Your task to perform on an android device: Open calendar and show me the third week of next month Image 0: 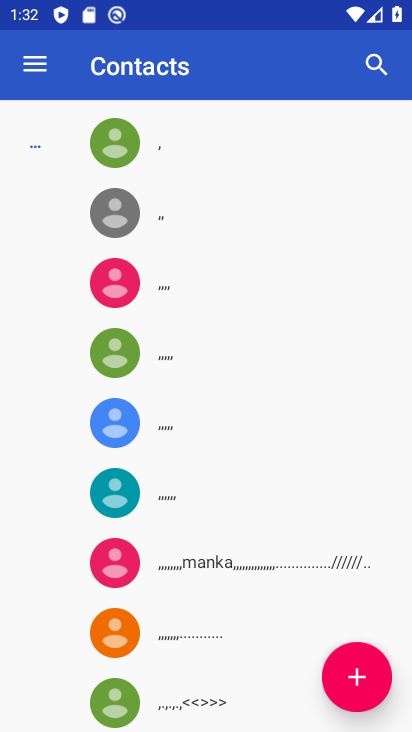
Step 0: press home button
Your task to perform on an android device: Open calendar and show me the third week of next month Image 1: 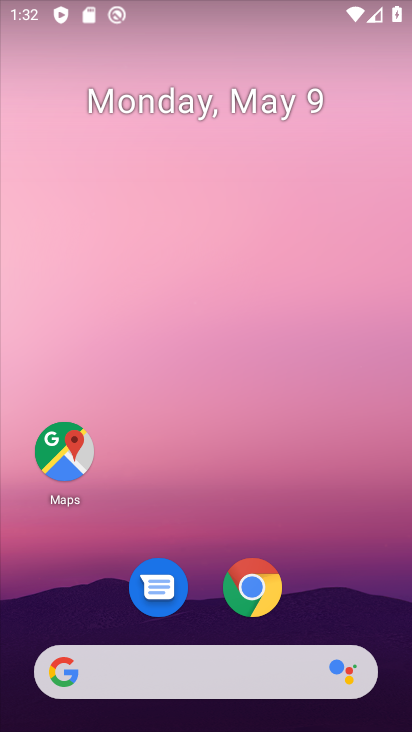
Step 1: drag from (214, 478) to (255, 31)
Your task to perform on an android device: Open calendar and show me the third week of next month Image 2: 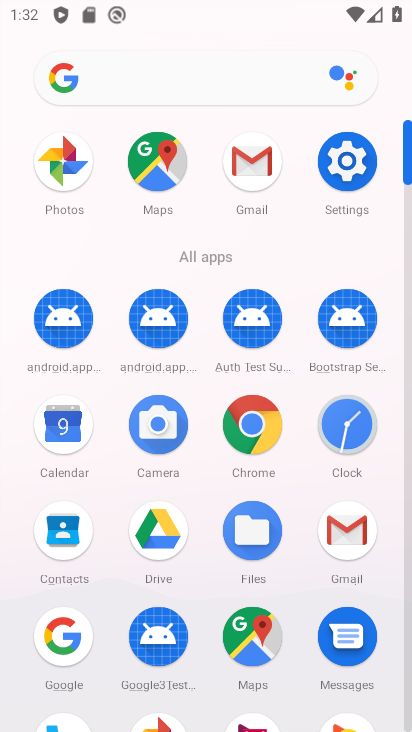
Step 2: click (66, 421)
Your task to perform on an android device: Open calendar and show me the third week of next month Image 3: 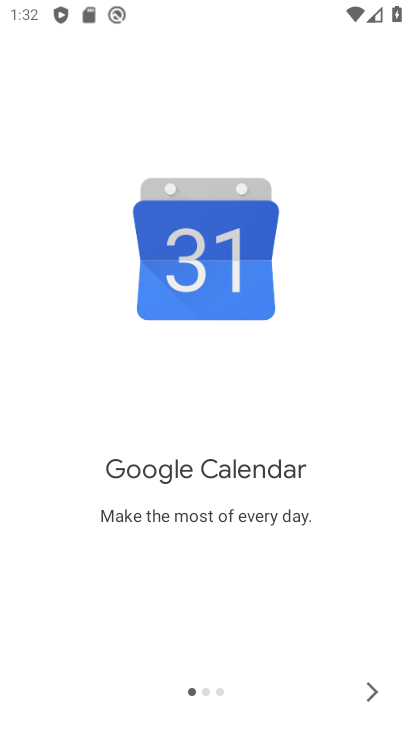
Step 3: click (373, 692)
Your task to perform on an android device: Open calendar and show me the third week of next month Image 4: 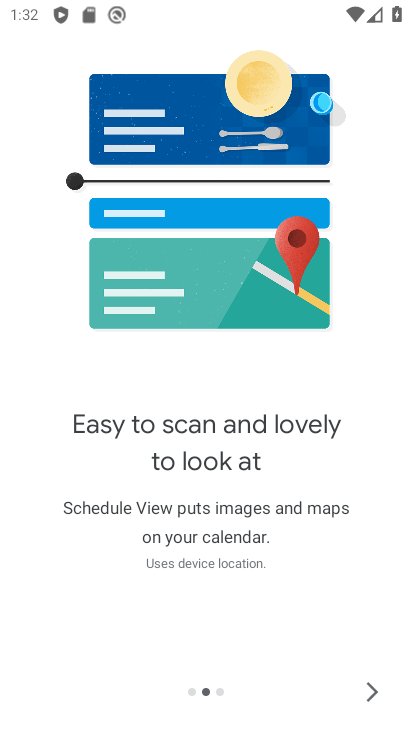
Step 4: click (373, 692)
Your task to perform on an android device: Open calendar and show me the third week of next month Image 5: 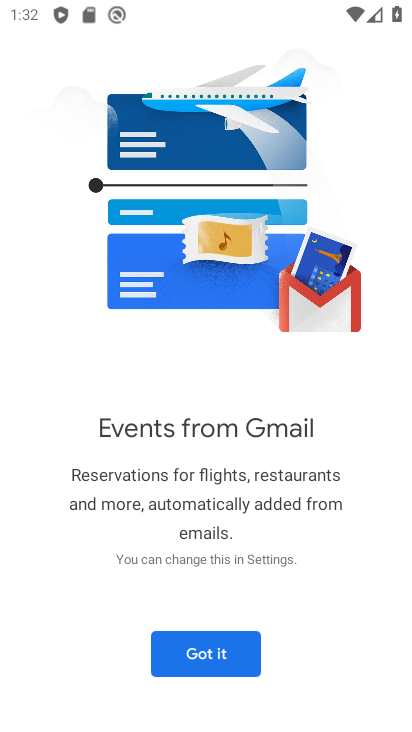
Step 5: click (237, 656)
Your task to perform on an android device: Open calendar and show me the third week of next month Image 6: 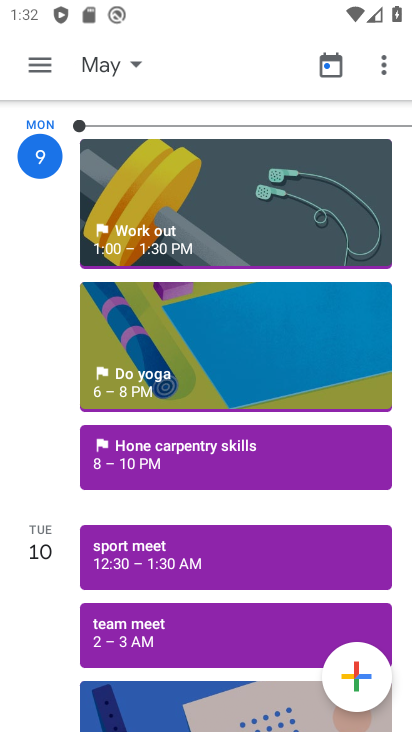
Step 6: click (99, 75)
Your task to perform on an android device: Open calendar and show me the third week of next month Image 7: 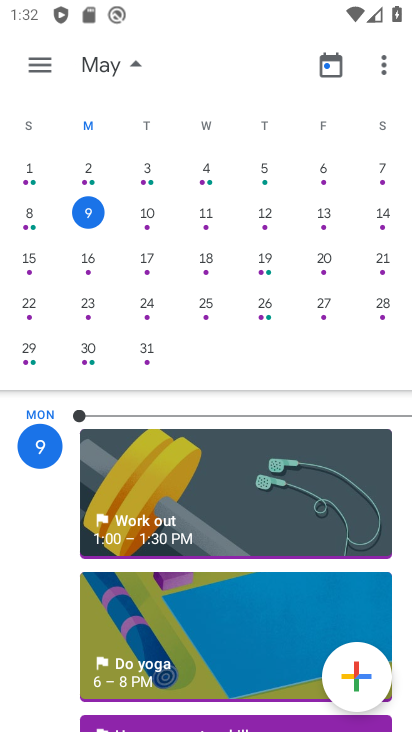
Step 7: drag from (358, 324) to (10, 298)
Your task to perform on an android device: Open calendar and show me the third week of next month Image 8: 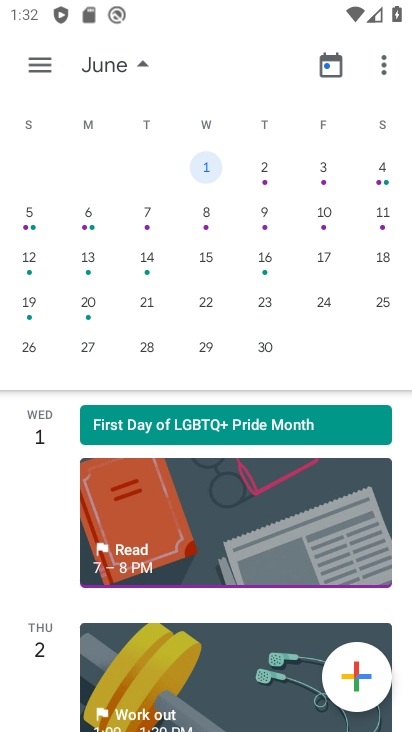
Step 8: click (40, 78)
Your task to perform on an android device: Open calendar and show me the third week of next month Image 9: 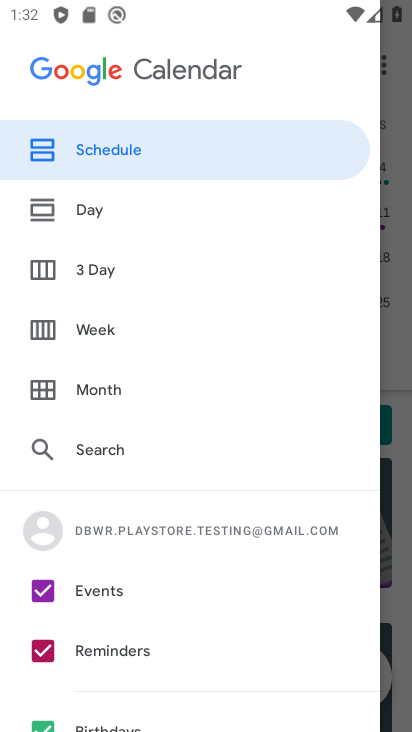
Step 9: click (105, 324)
Your task to perform on an android device: Open calendar and show me the third week of next month Image 10: 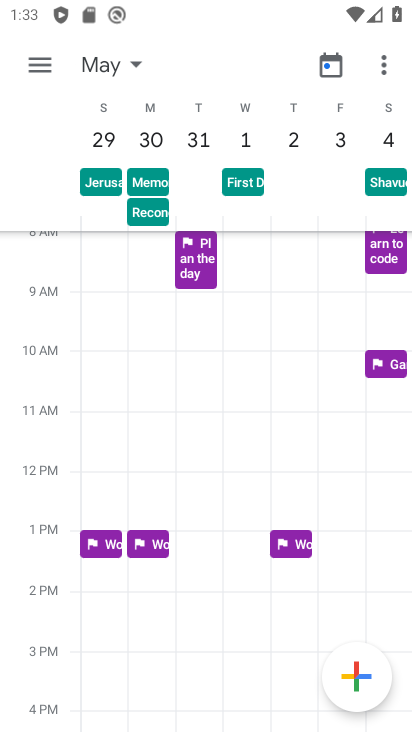
Step 10: task complete